Your task to perform on an android device: check battery use Image 0: 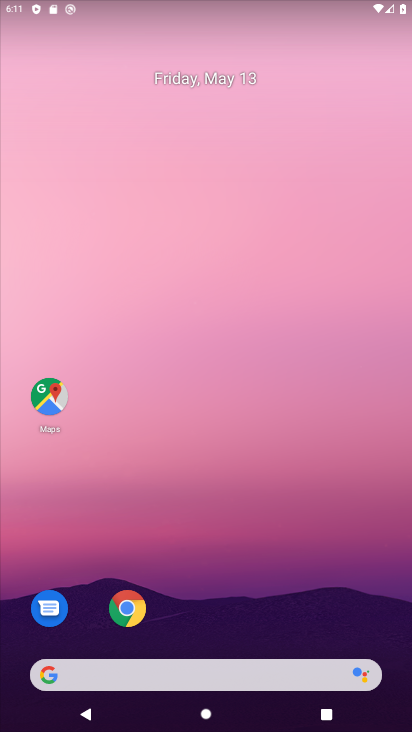
Step 0: drag from (228, 605) to (320, 3)
Your task to perform on an android device: check battery use Image 1: 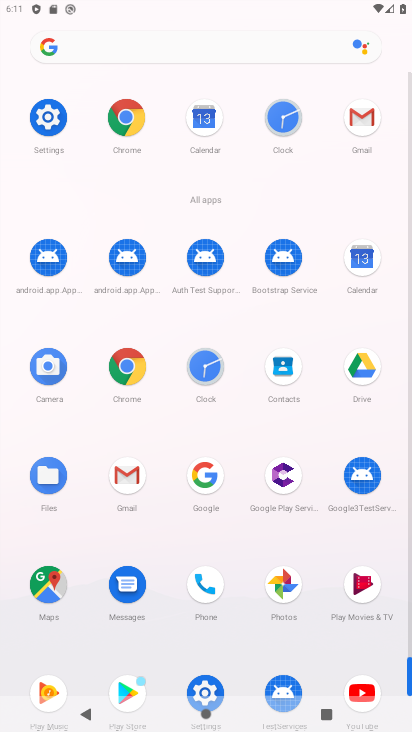
Step 1: click (47, 145)
Your task to perform on an android device: check battery use Image 2: 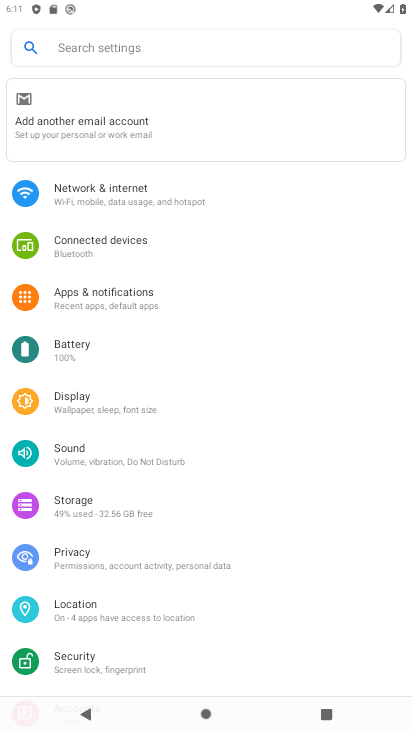
Step 2: click (98, 349)
Your task to perform on an android device: check battery use Image 3: 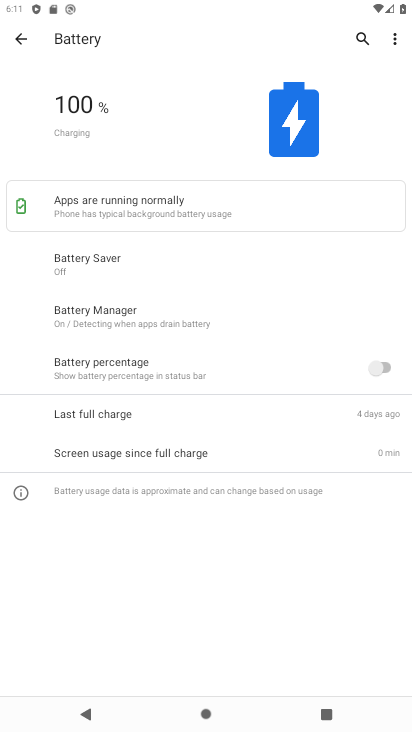
Step 3: click (397, 41)
Your task to perform on an android device: check battery use Image 4: 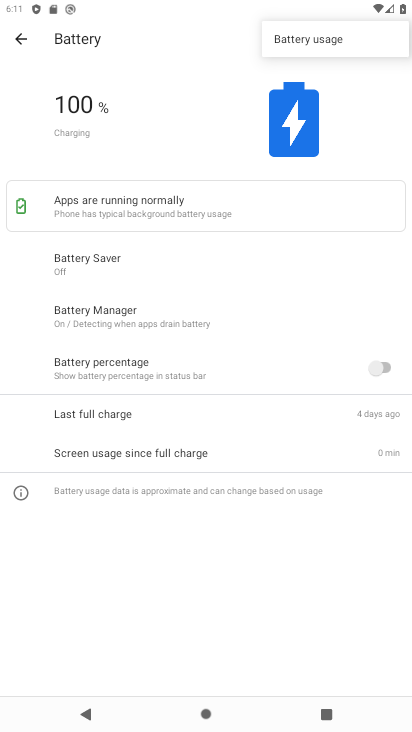
Step 4: click (316, 44)
Your task to perform on an android device: check battery use Image 5: 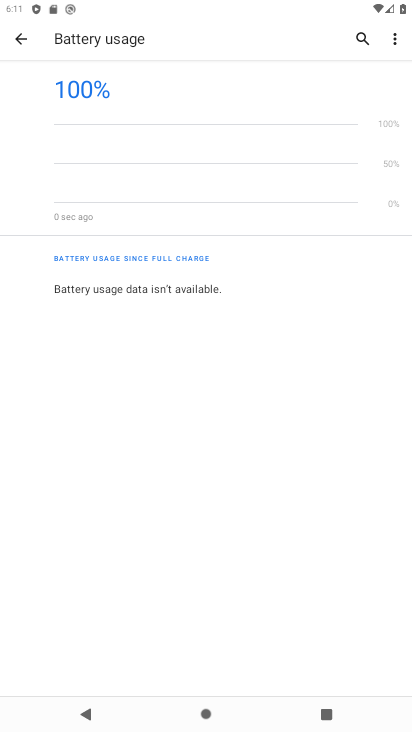
Step 5: task complete